Your task to perform on an android device: Open calendar and show me the third week of next month Image 0: 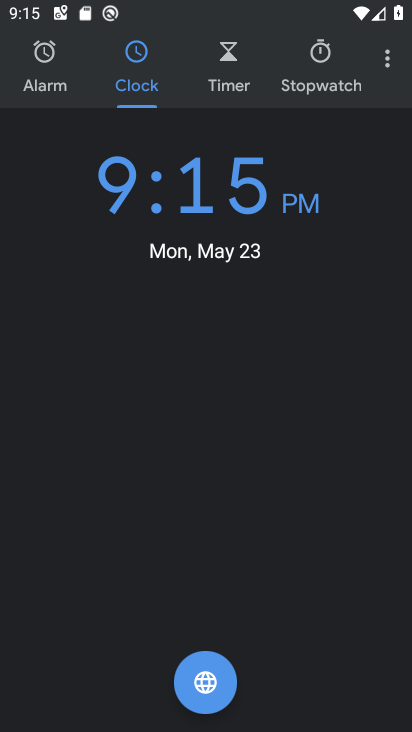
Step 0: press home button
Your task to perform on an android device: Open calendar and show me the third week of next month Image 1: 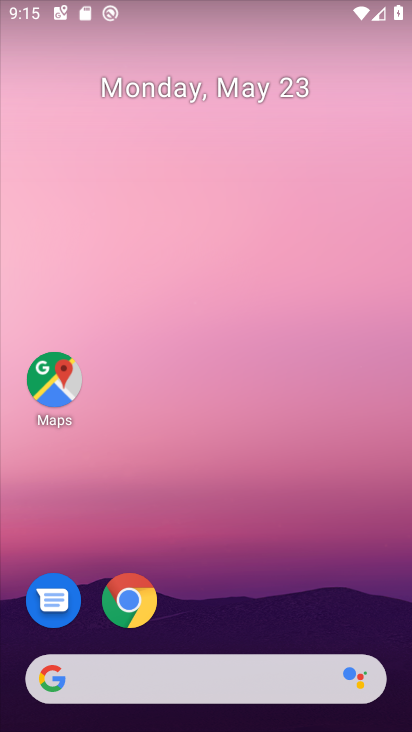
Step 1: drag from (217, 720) to (214, 93)
Your task to perform on an android device: Open calendar and show me the third week of next month Image 2: 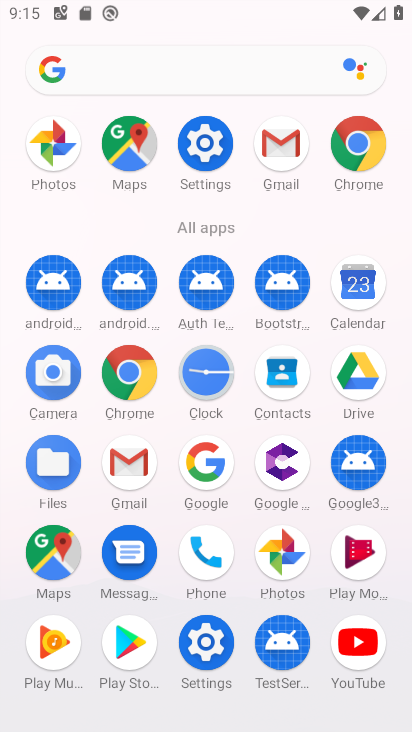
Step 2: click (349, 295)
Your task to perform on an android device: Open calendar and show me the third week of next month Image 3: 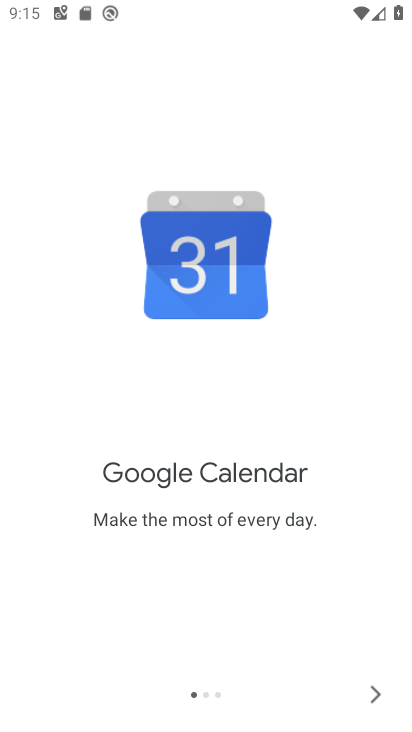
Step 3: click (378, 693)
Your task to perform on an android device: Open calendar and show me the third week of next month Image 4: 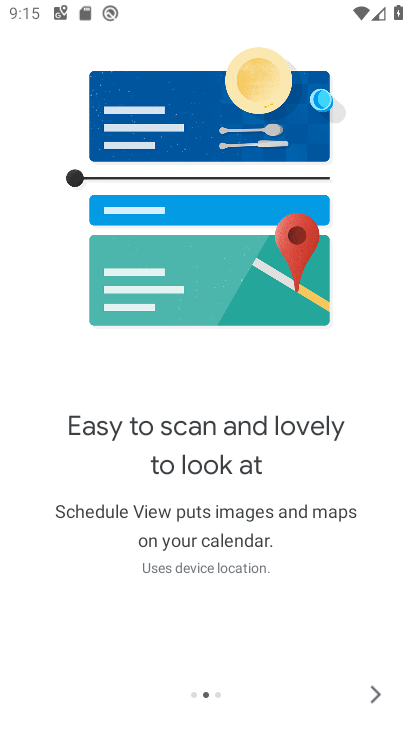
Step 4: click (370, 686)
Your task to perform on an android device: Open calendar and show me the third week of next month Image 5: 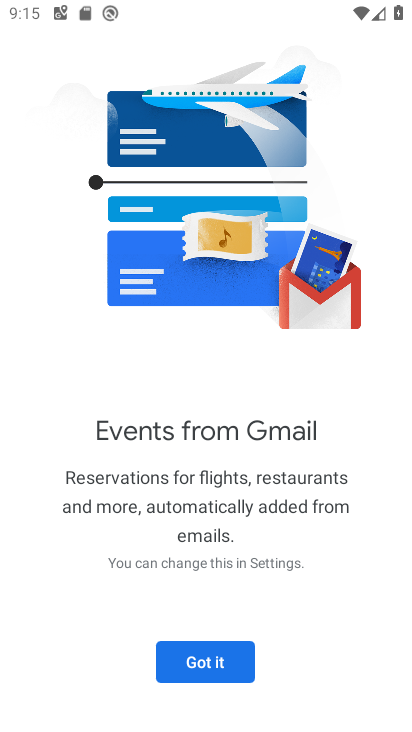
Step 5: click (204, 657)
Your task to perform on an android device: Open calendar and show me the third week of next month Image 6: 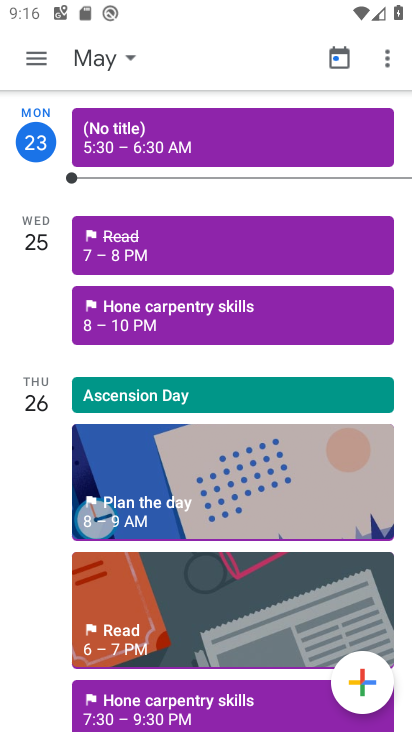
Step 6: click (127, 50)
Your task to perform on an android device: Open calendar and show me the third week of next month Image 7: 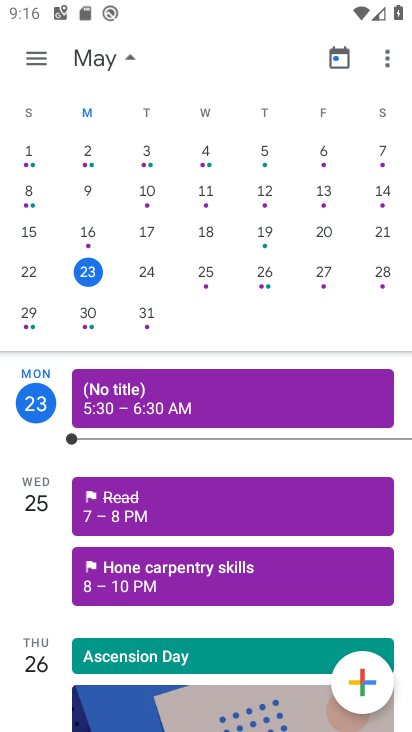
Step 7: drag from (366, 246) to (0, 212)
Your task to perform on an android device: Open calendar and show me the third week of next month Image 8: 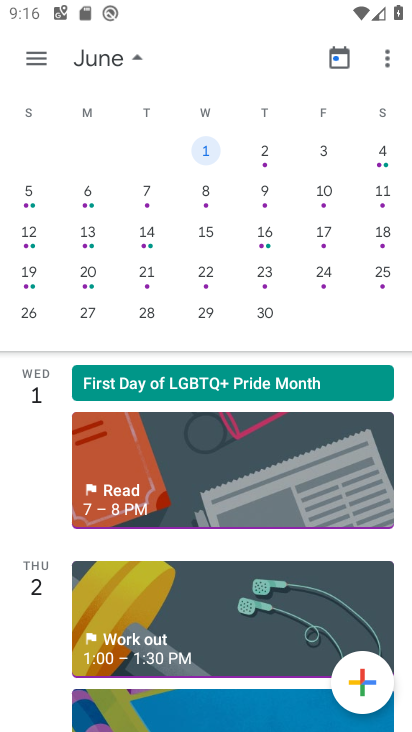
Step 8: click (85, 272)
Your task to perform on an android device: Open calendar and show me the third week of next month Image 9: 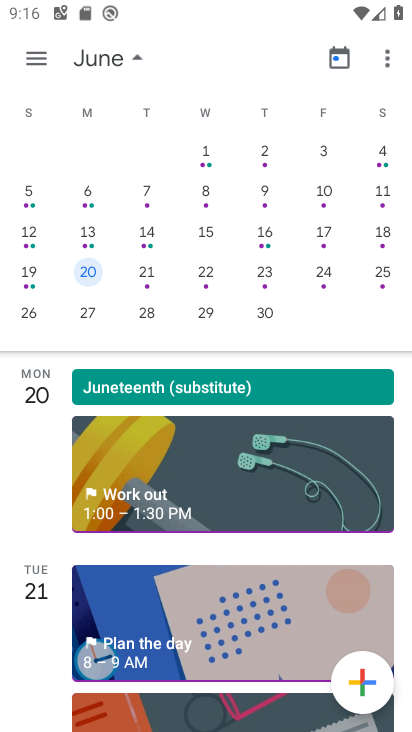
Step 9: click (86, 272)
Your task to perform on an android device: Open calendar and show me the third week of next month Image 10: 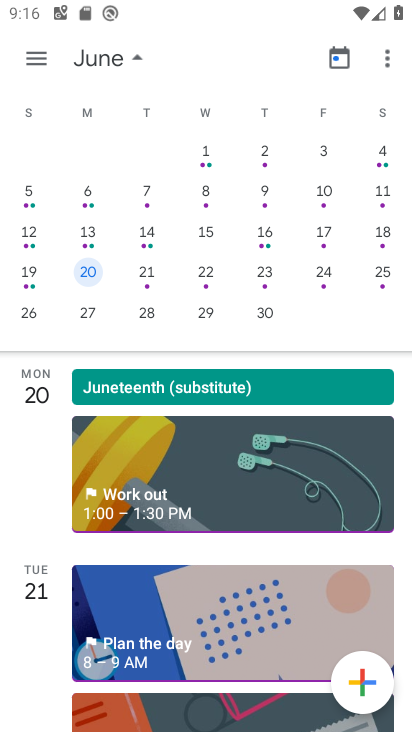
Step 10: click (34, 56)
Your task to perform on an android device: Open calendar and show me the third week of next month Image 11: 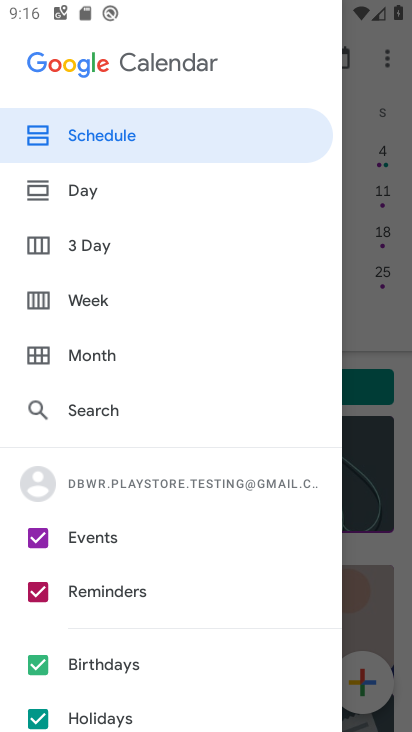
Step 11: click (87, 299)
Your task to perform on an android device: Open calendar and show me the third week of next month Image 12: 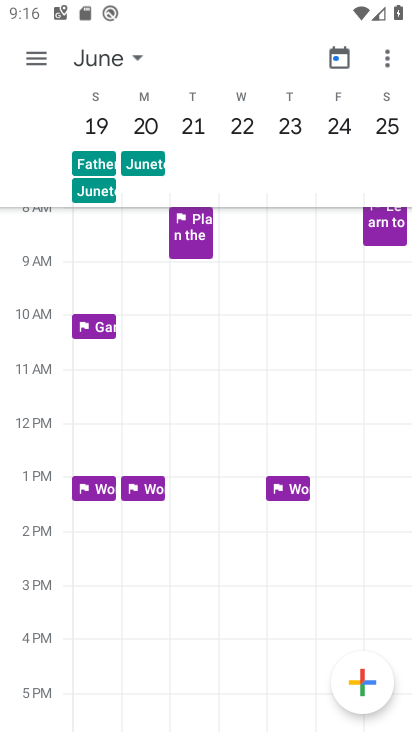
Step 12: task complete